Your task to perform on an android device: Open display settings Image 0: 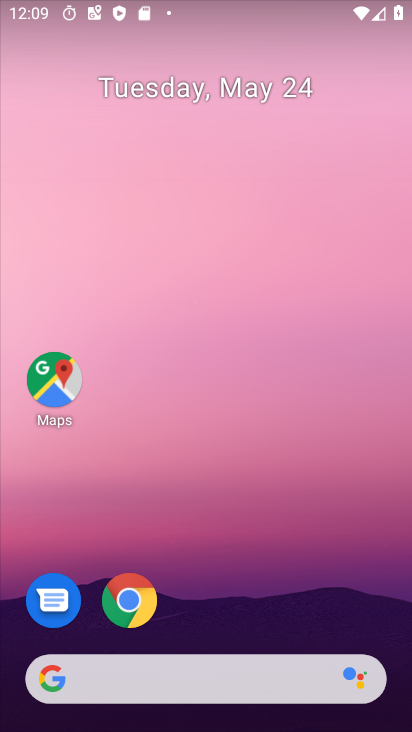
Step 0: drag from (222, 483) to (242, 143)
Your task to perform on an android device: Open display settings Image 1: 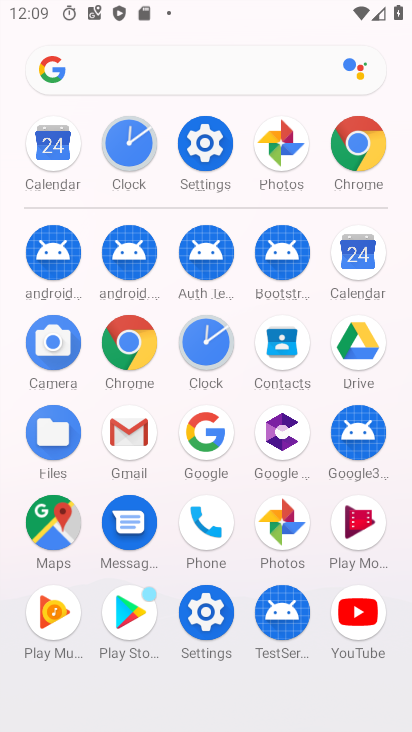
Step 1: click (210, 146)
Your task to perform on an android device: Open display settings Image 2: 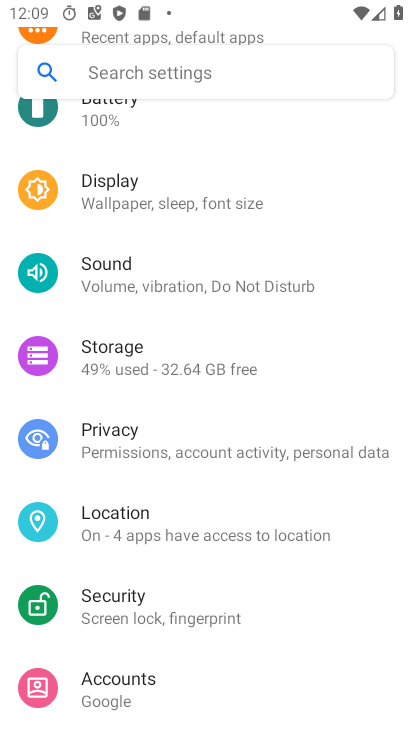
Step 2: click (189, 207)
Your task to perform on an android device: Open display settings Image 3: 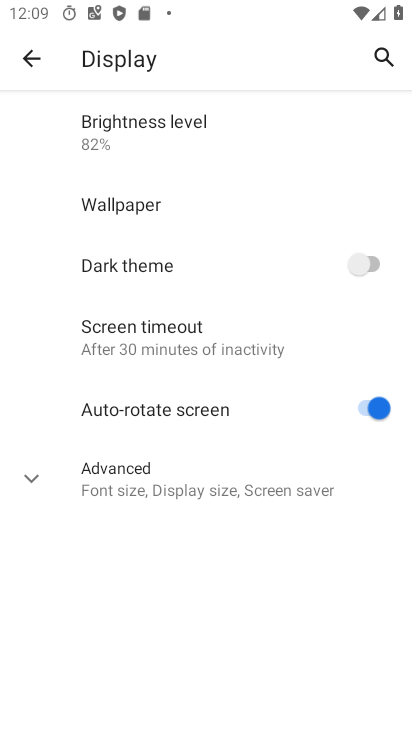
Step 3: task complete